Your task to perform on an android device: turn off picture-in-picture Image 0: 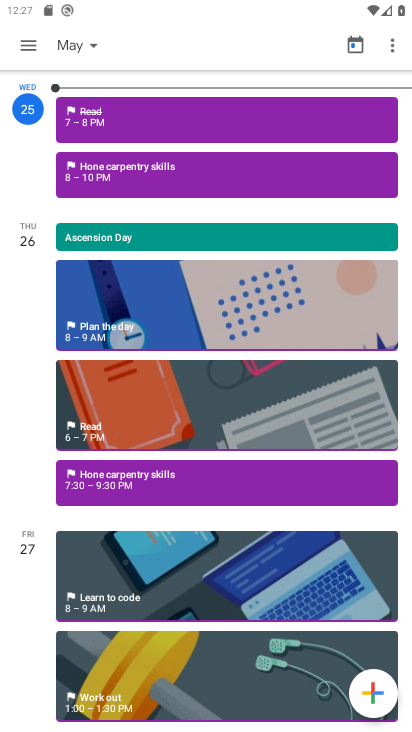
Step 0: press home button
Your task to perform on an android device: turn off picture-in-picture Image 1: 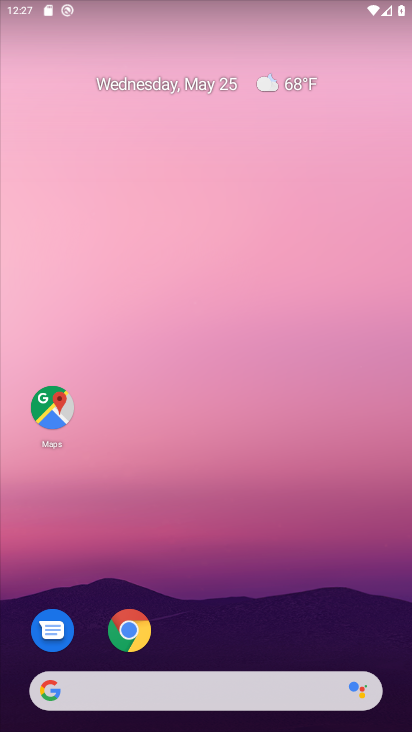
Step 1: click (138, 637)
Your task to perform on an android device: turn off picture-in-picture Image 2: 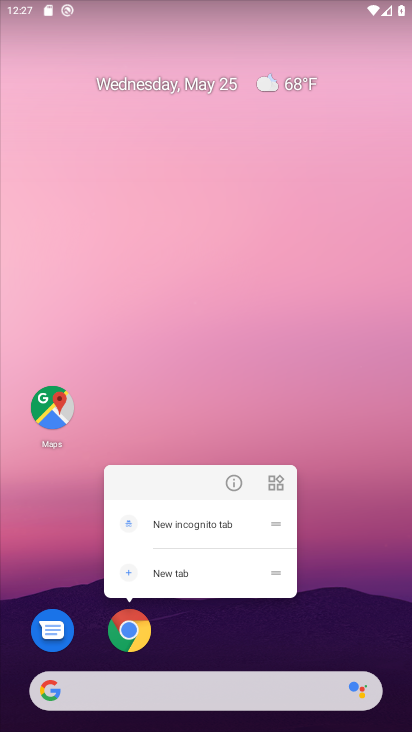
Step 2: click (228, 486)
Your task to perform on an android device: turn off picture-in-picture Image 3: 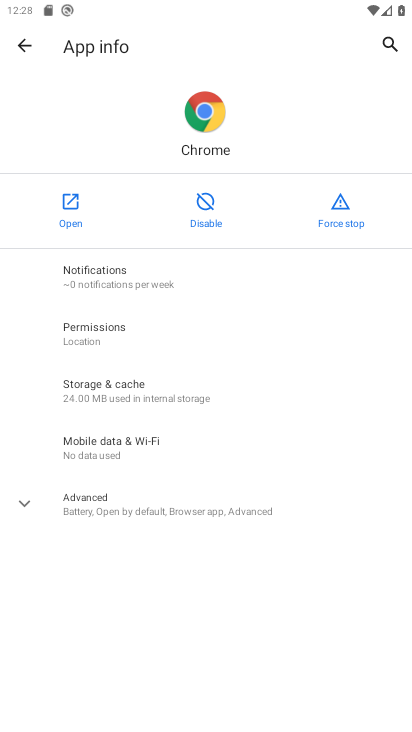
Step 3: click (158, 499)
Your task to perform on an android device: turn off picture-in-picture Image 4: 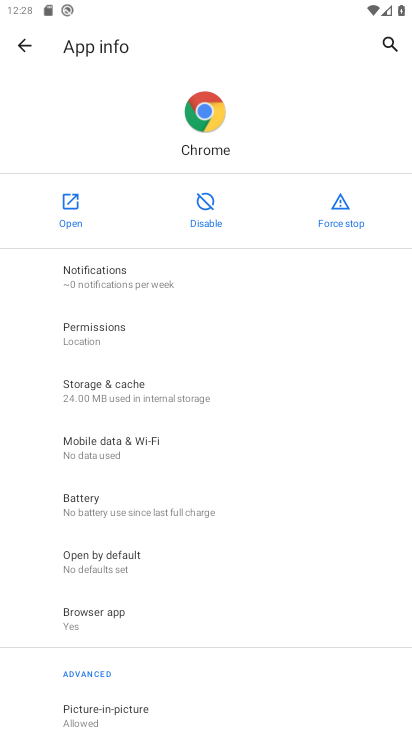
Step 4: click (155, 711)
Your task to perform on an android device: turn off picture-in-picture Image 5: 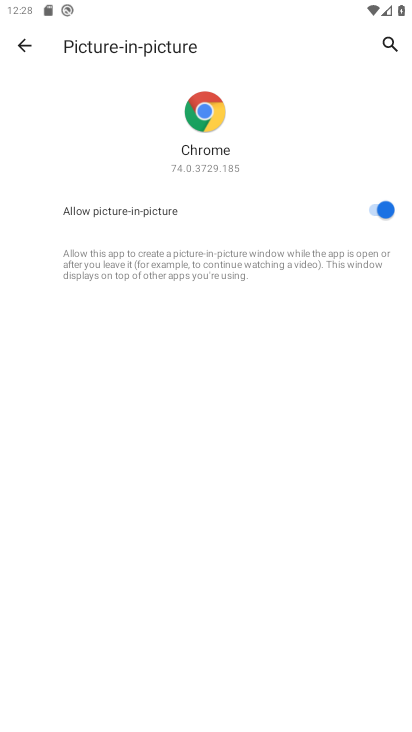
Step 5: click (372, 213)
Your task to perform on an android device: turn off picture-in-picture Image 6: 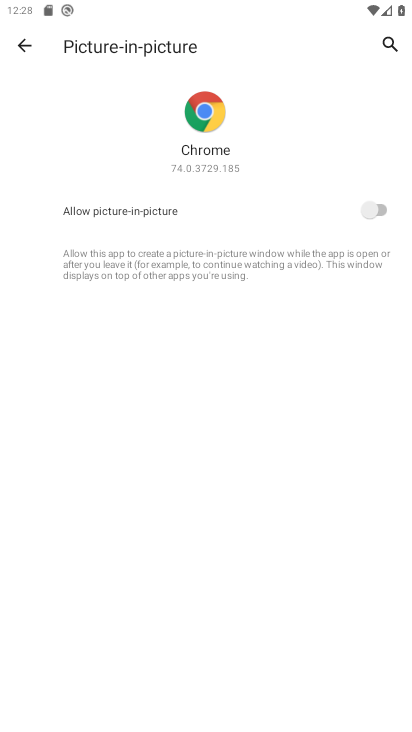
Step 6: task complete